Your task to perform on an android device: open app "Instagram" Image 0: 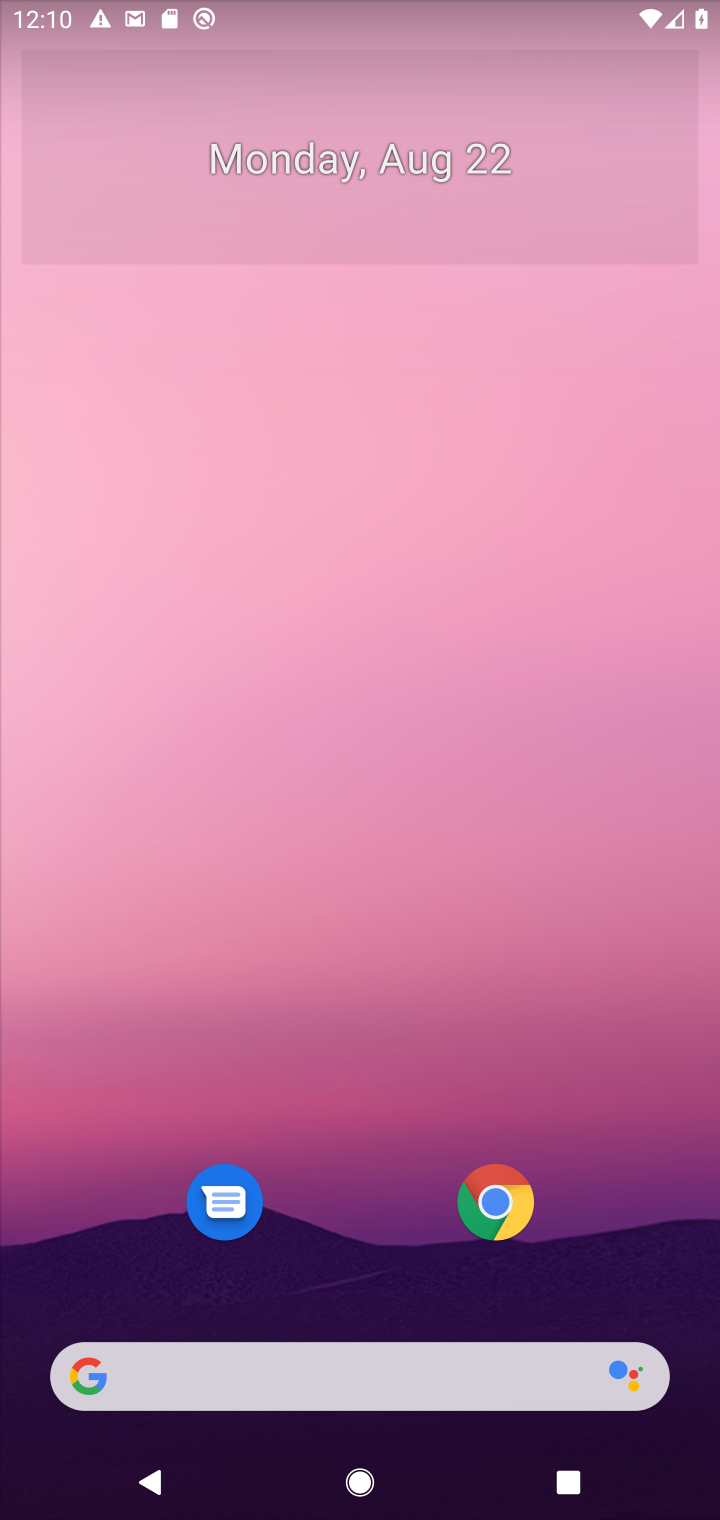
Step 0: drag from (361, 963) to (346, 169)
Your task to perform on an android device: open app "Instagram" Image 1: 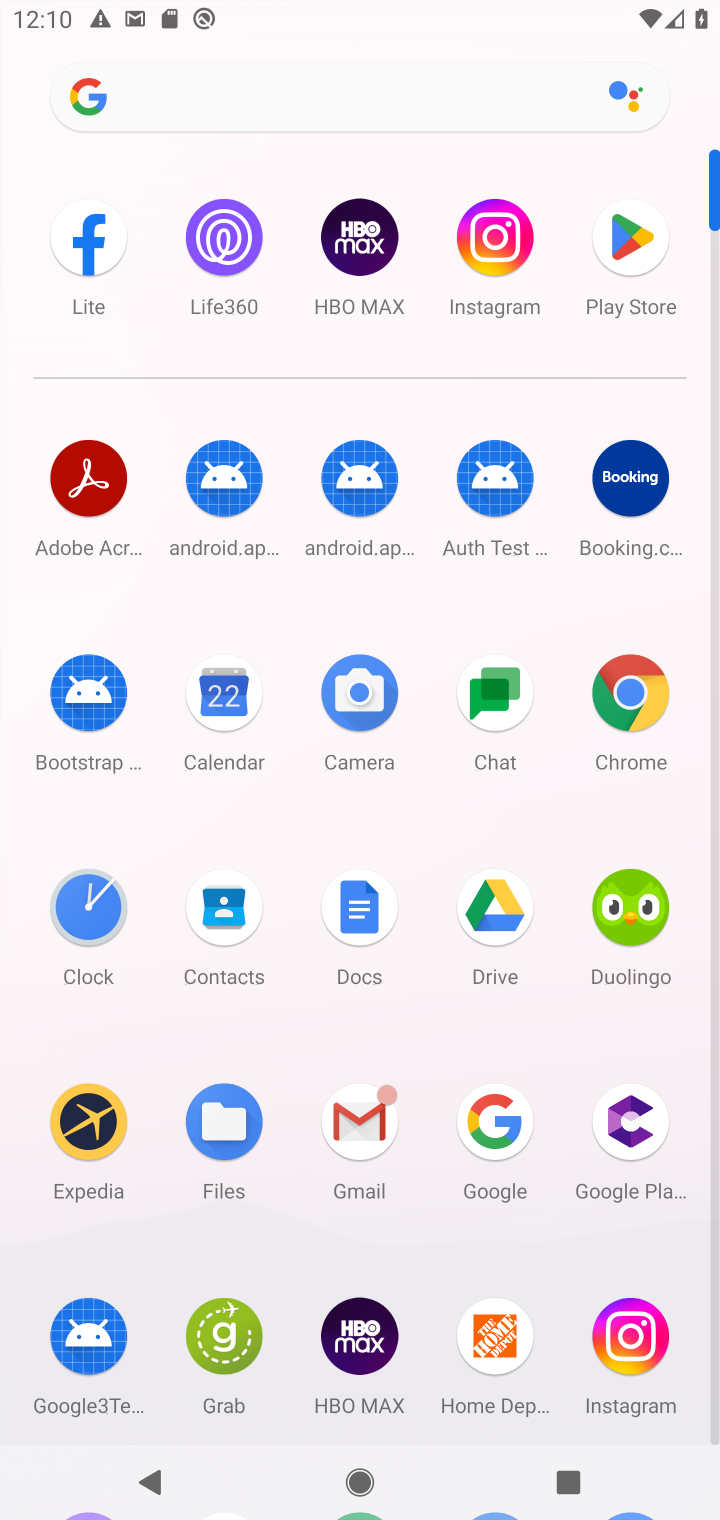
Step 1: click (616, 1338)
Your task to perform on an android device: open app "Instagram" Image 2: 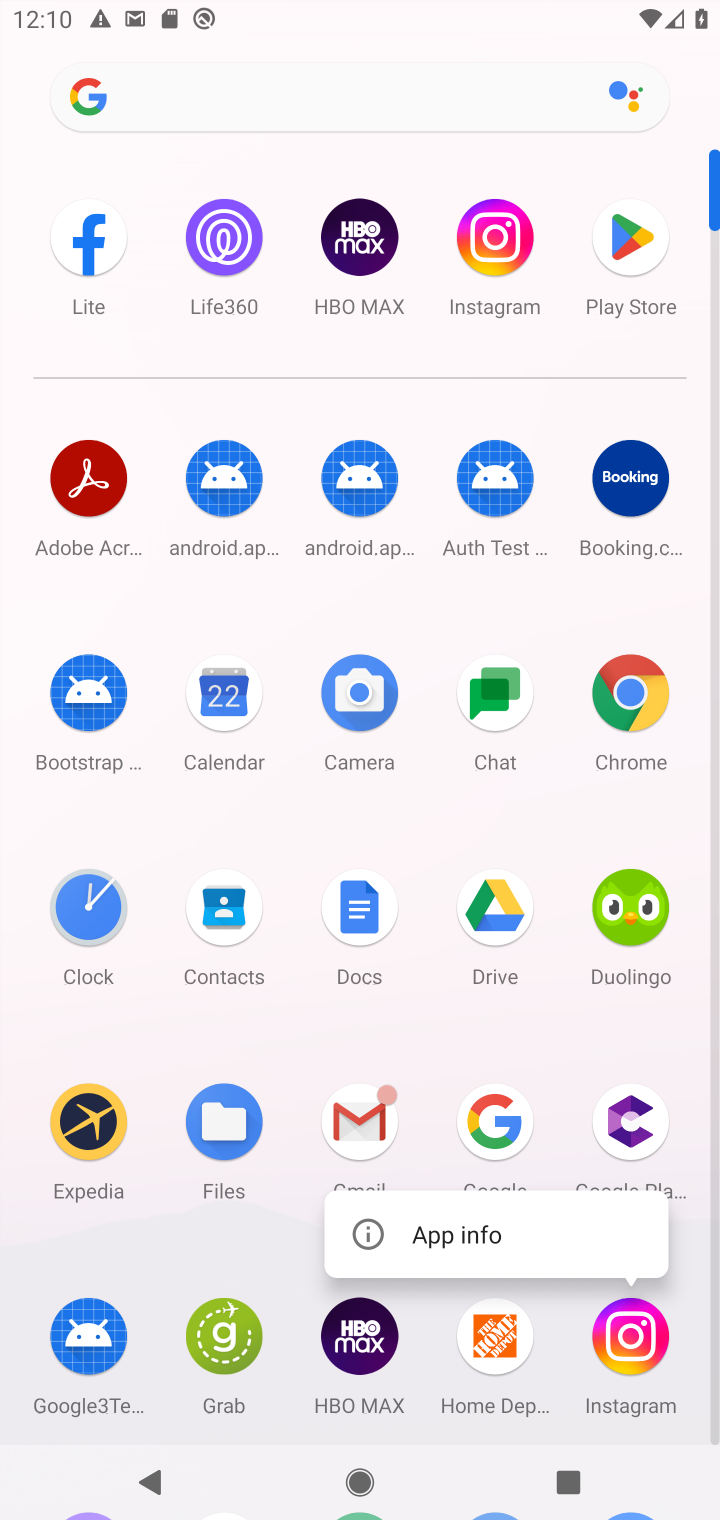
Step 2: click (616, 1338)
Your task to perform on an android device: open app "Instagram" Image 3: 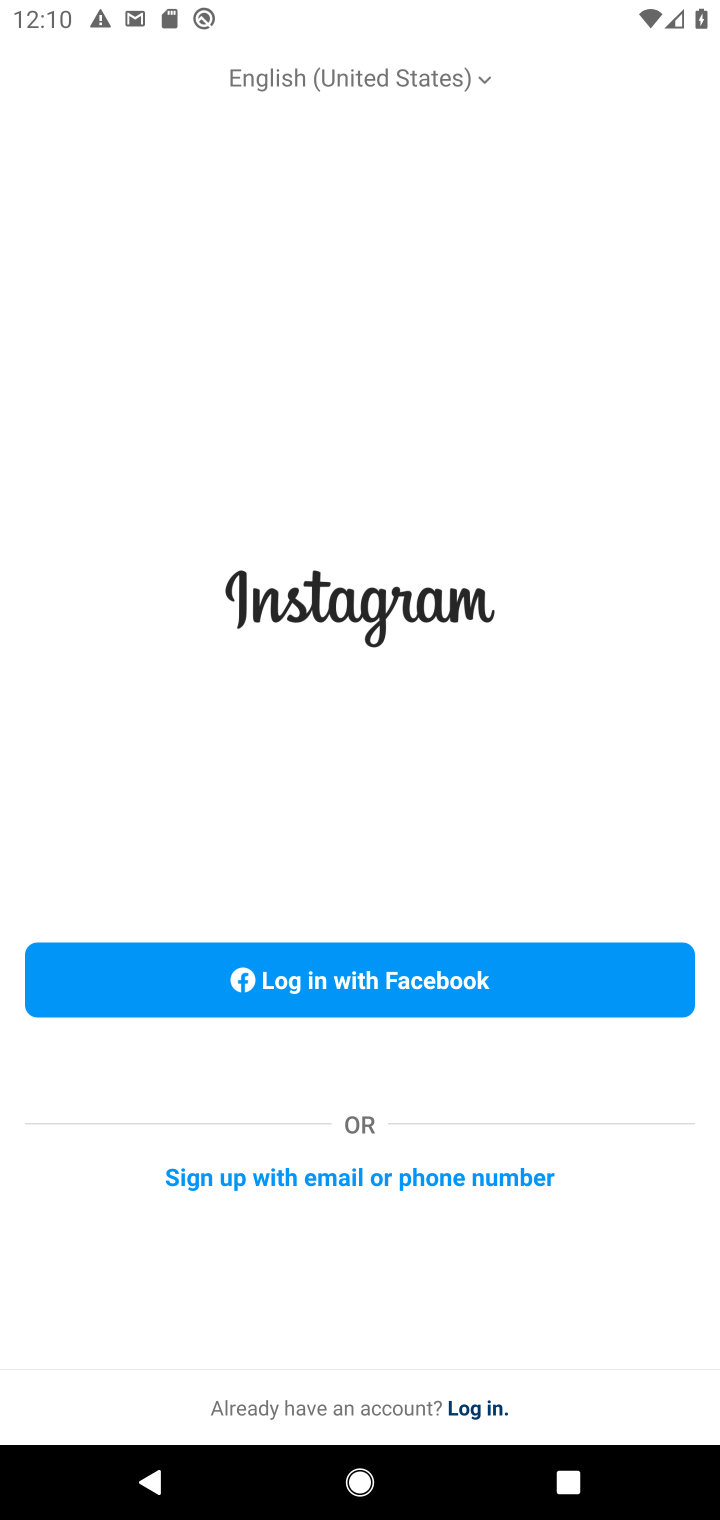
Step 3: task complete